Your task to perform on an android device: What's the news in Japan? Image 0: 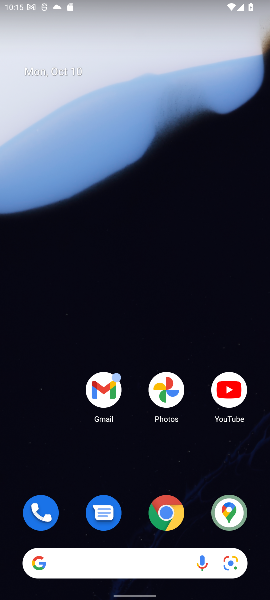
Step 0: drag from (135, 497) to (103, 155)
Your task to perform on an android device: What's the news in Japan? Image 1: 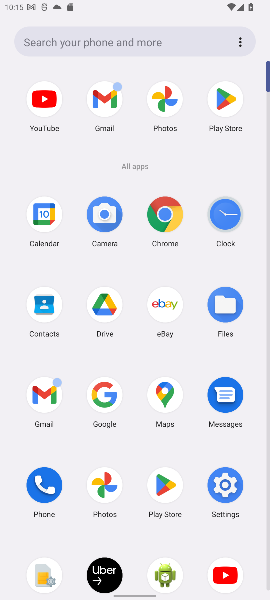
Step 1: click (101, 398)
Your task to perform on an android device: What's the news in Japan? Image 2: 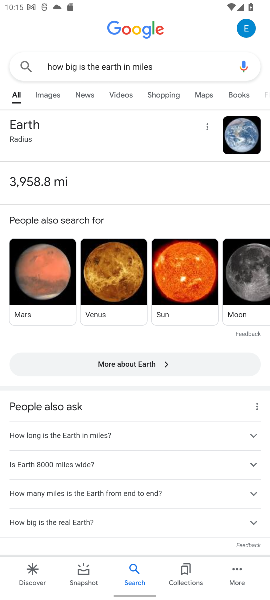
Step 2: click (163, 74)
Your task to perform on an android device: What's the news in Japan? Image 3: 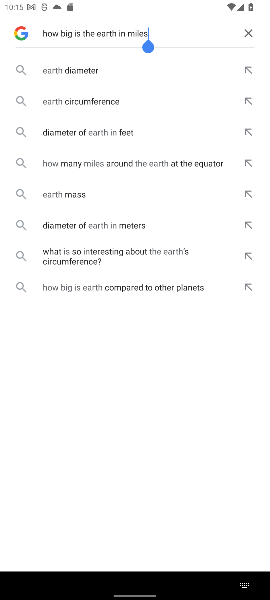
Step 3: click (244, 34)
Your task to perform on an android device: What's the news in Japan? Image 4: 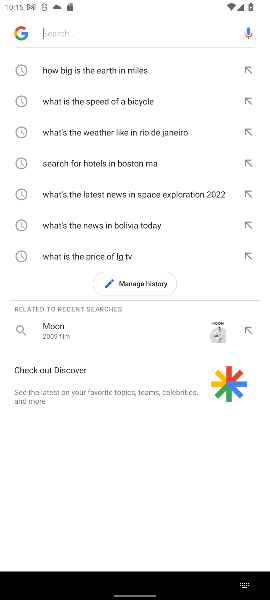
Step 4: type "What's the news in Japan?"
Your task to perform on an android device: What's the news in Japan? Image 5: 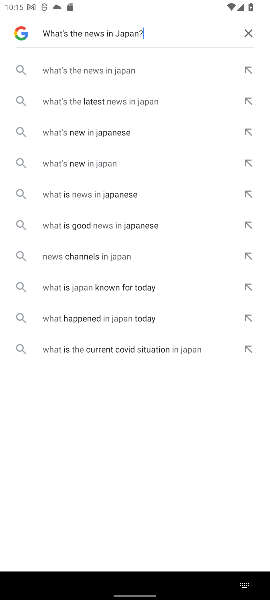
Step 5: click (100, 68)
Your task to perform on an android device: What's the news in Japan? Image 6: 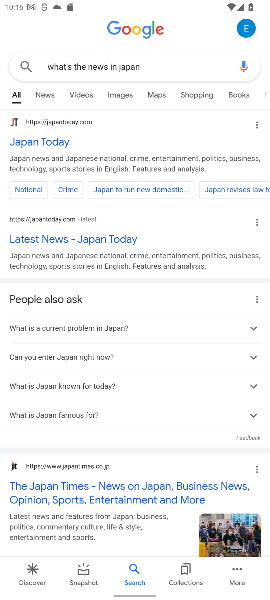
Step 6: task complete